Your task to perform on an android device: change notification settings in the gmail app Image 0: 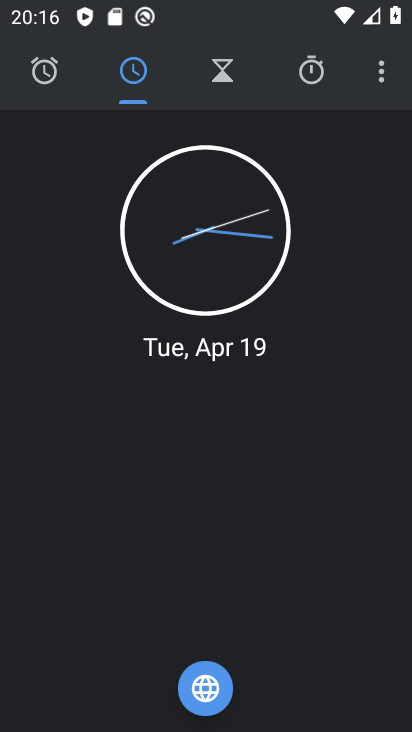
Step 0: drag from (365, 566) to (372, 265)
Your task to perform on an android device: change notification settings in the gmail app Image 1: 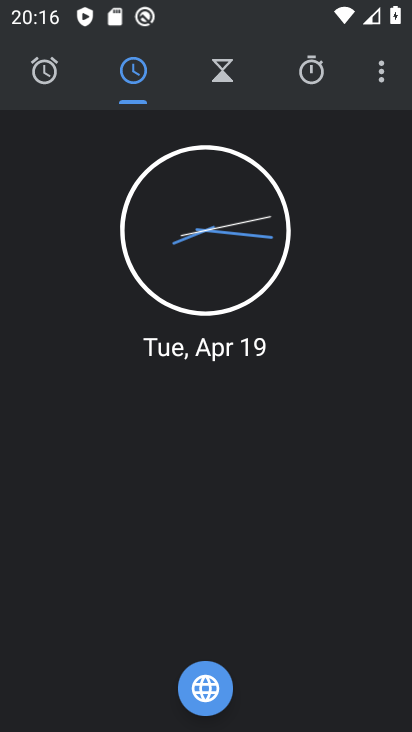
Step 1: press home button
Your task to perform on an android device: change notification settings in the gmail app Image 2: 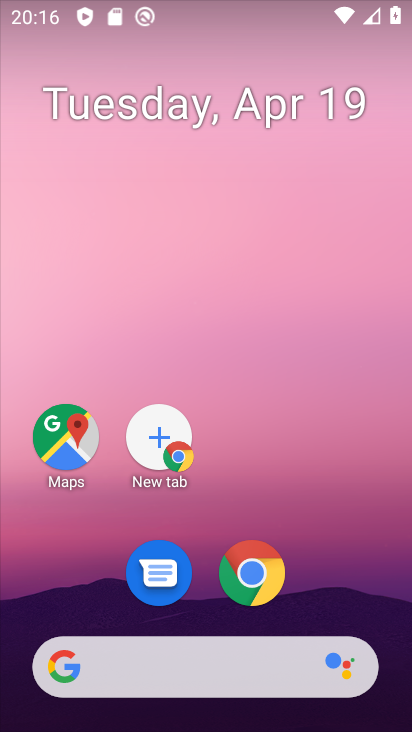
Step 2: drag from (364, 516) to (346, 156)
Your task to perform on an android device: change notification settings in the gmail app Image 3: 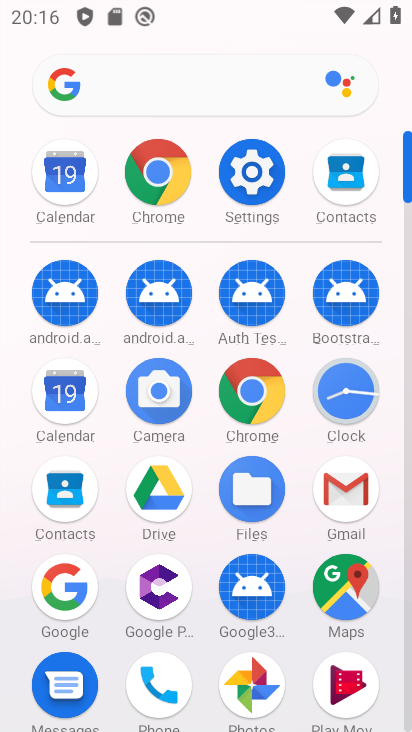
Step 3: click (341, 502)
Your task to perform on an android device: change notification settings in the gmail app Image 4: 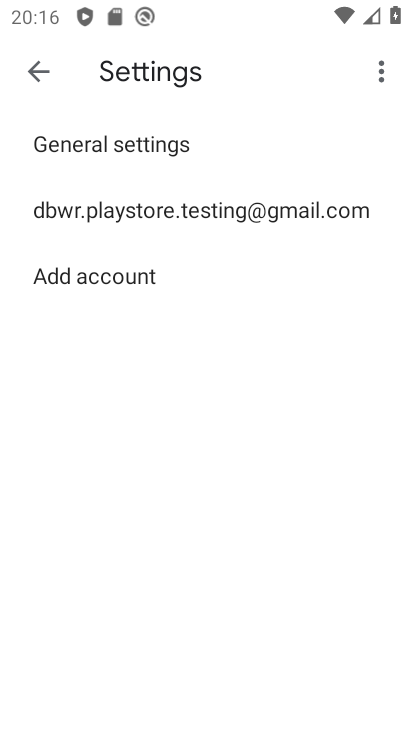
Step 4: click (104, 142)
Your task to perform on an android device: change notification settings in the gmail app Image 5: 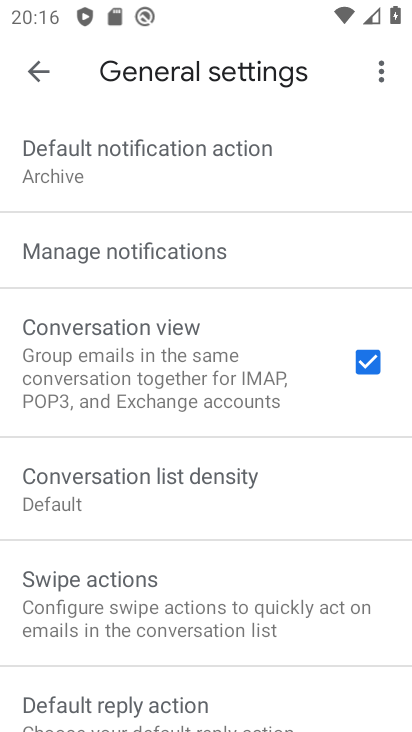
Step 5: click (140, 259)
Your task to perform on an android device: change notification settings in the gmail app Image 6: 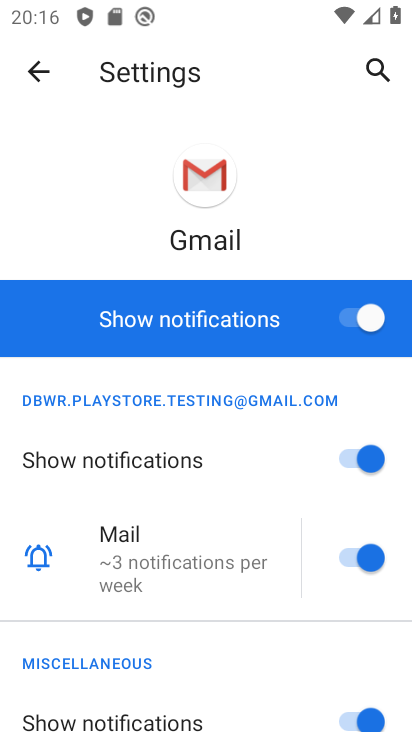
Step 6: click (348, 467)
Your task to perform on an android device: change notification settings in the gmail app Image 7: 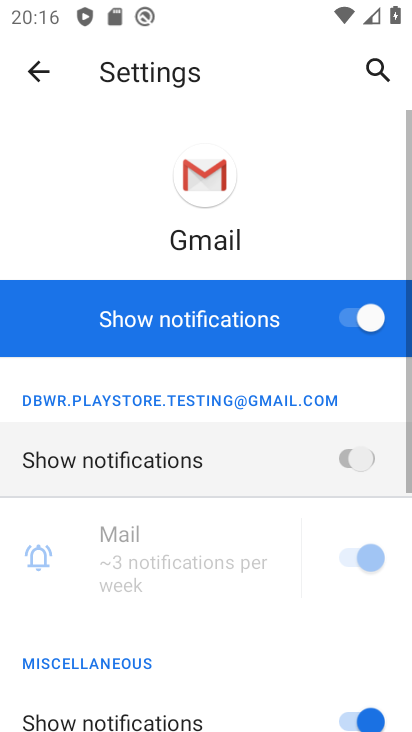
Step 7: click (357, 570)
Your task to perform on an android device: change notification settings in the gmail app Image 8: 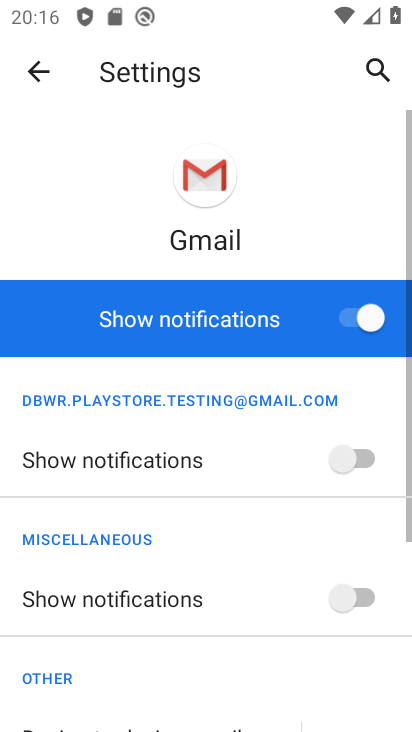
Step 8: drag from (280, 614) to (262, 310)
Your task to perform on an android device: change notification settings in the gmail app Image 9: 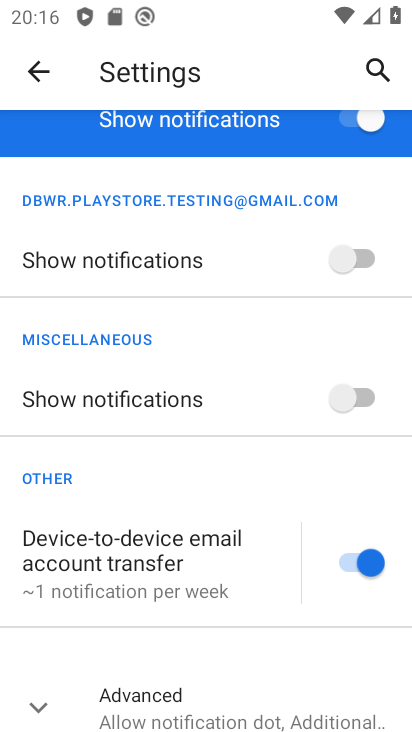
Step 9: click (350, 559)
Your task to perform on an android device: change notification settings in the gmail app Image 10: 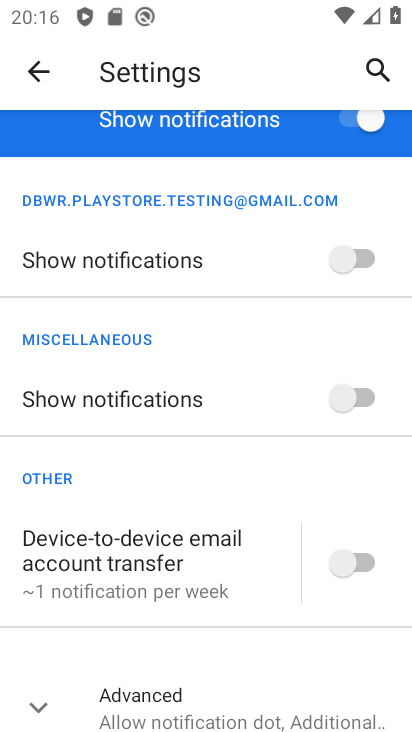
Step 10: task complete